Your task to perform on an android device: star an email in the gmail app Image 0: 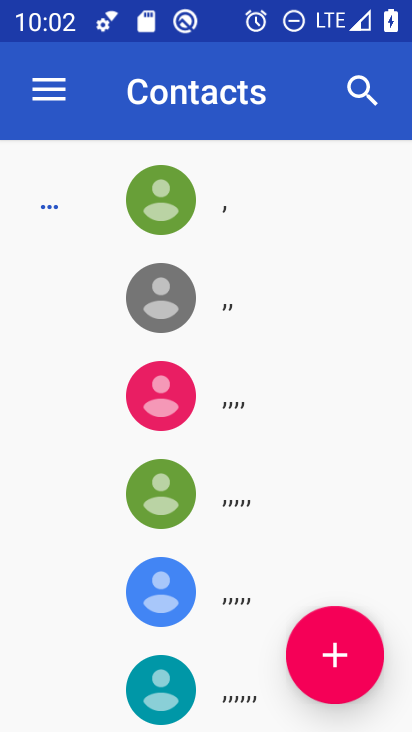
Step 0: press home button
Your task to perform on an android device: star an email in the gmail app Image 1: 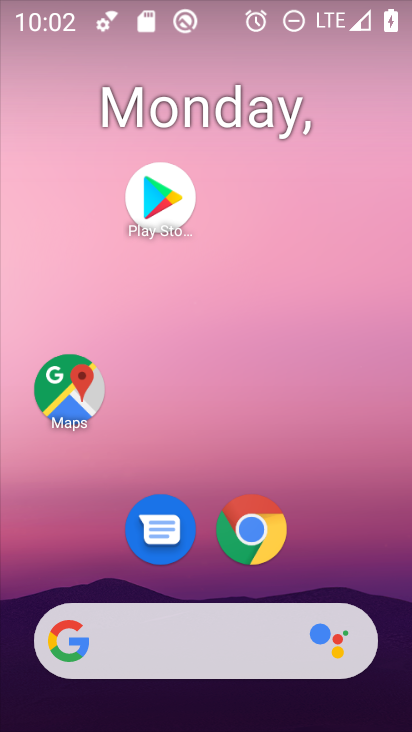
Step 1: drag from (341, 507) to (150, 67)
Your task to perform on an android device: star an email in the gmail app Image 2: 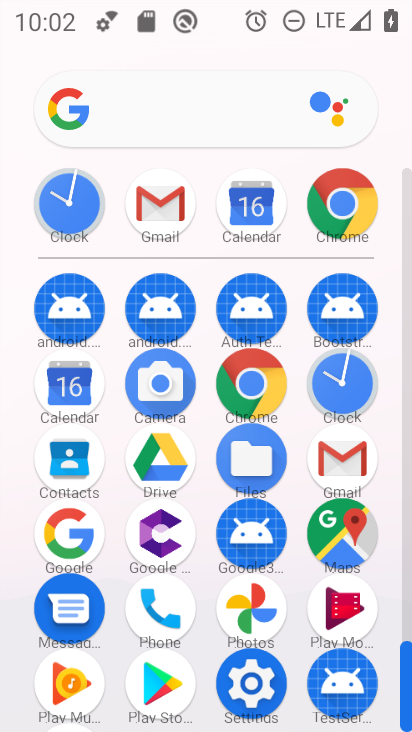
Step 2: click (153, 205)
Your task to perform on an android device: star an email in the gmail app Image 3: 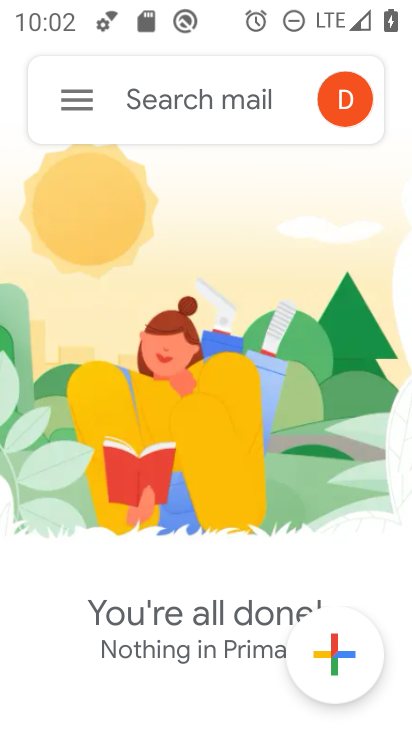
Step 3: click (72, 95)
Your task to perform on an android device: star an email in the gmail app Image 4: 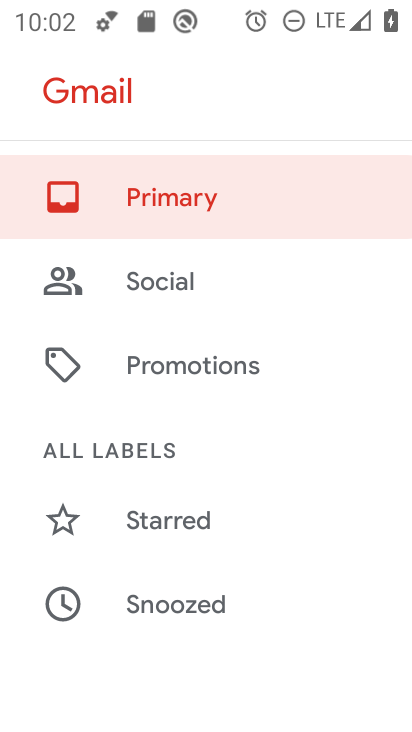
Step 4: drag from (221, 553) to (174, 203)
Your task to perform on an android device: star an email in the gmail app Image 5: 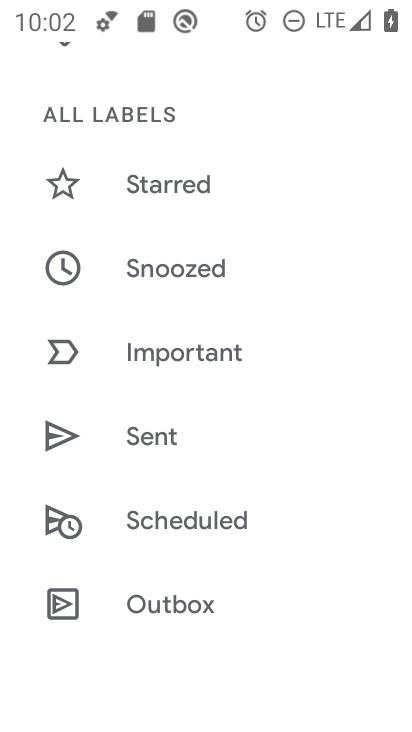
Step 5: drag from (270, 534) to (249, 264)
Your task to perform on an android device: star an email in the gmail app Image 6: 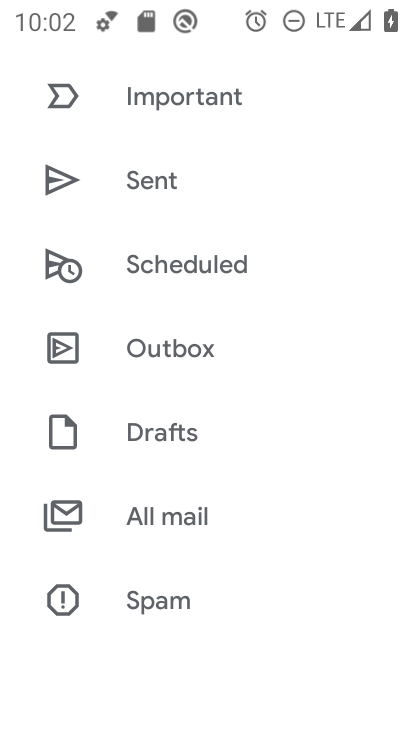
Step 6: click (180, 512)
Your task to perform on an android device: star an email in the gmail app Image 7: 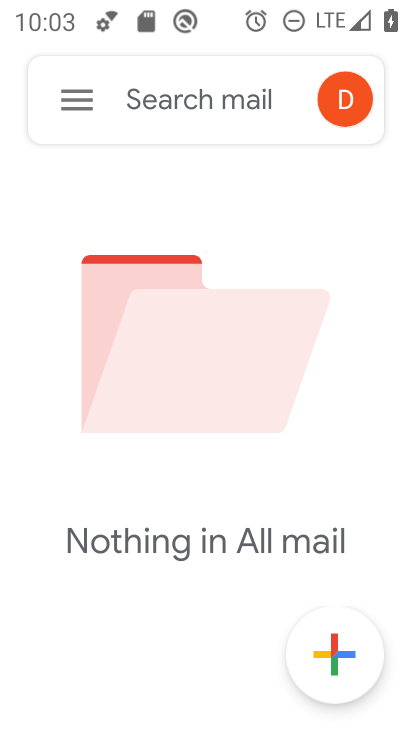
Step 7: task complete